Your task to perform on an android device: Open network settings Image 0: 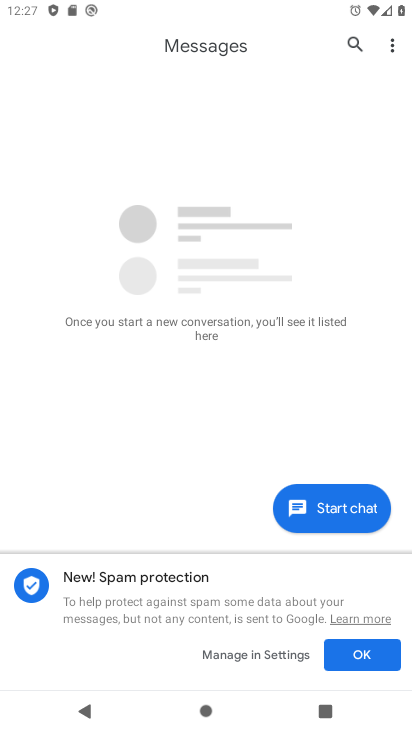
Step 0: press home button
Your task to perform on an android device: Open network settings Image 1: 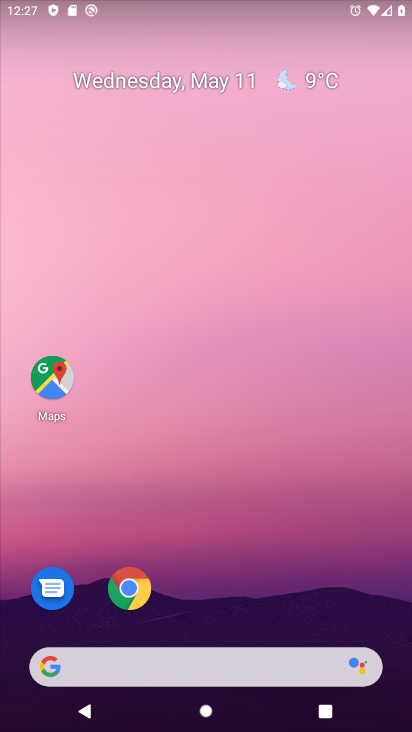
Step 1: drag from (329, 604) to (308, 35)
Your task to perform on an android device: Open network settings Image 2: 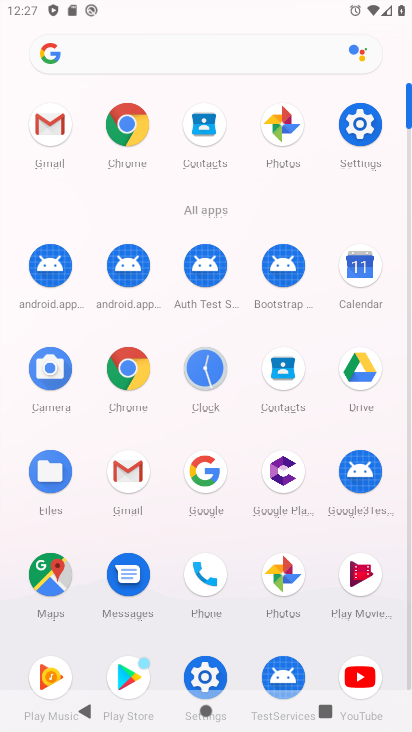
Step 2: click (359, 127)
Your task to perform on an android device: Open network settings Image 3: 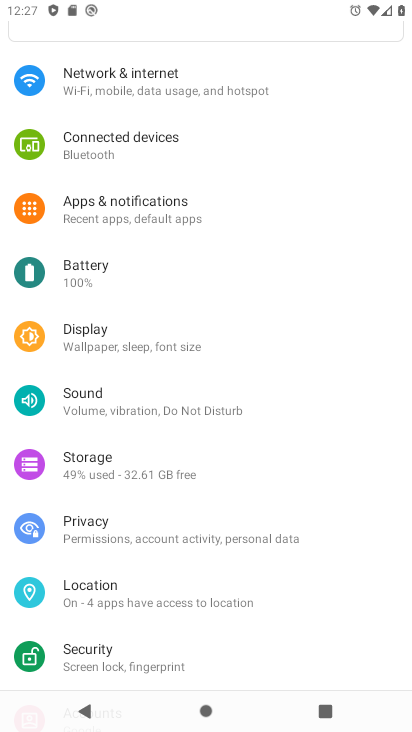
Step 3: click (110, 88)
Your task to perform on an android device: Open network settings Image 4: 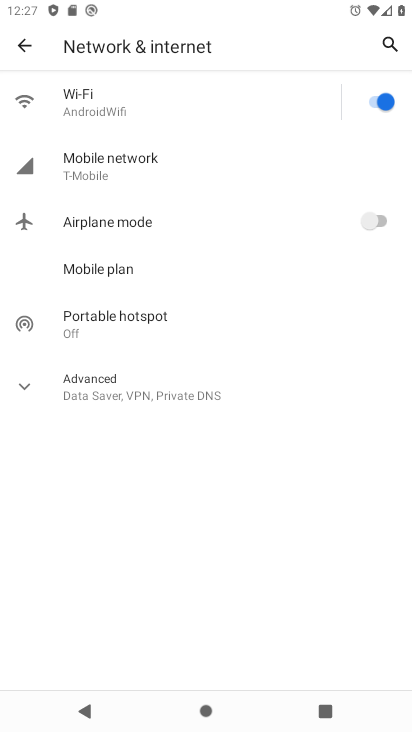
Step 4: click (90, 162)
Your task to perform on an android device: Open network settings Image 5: 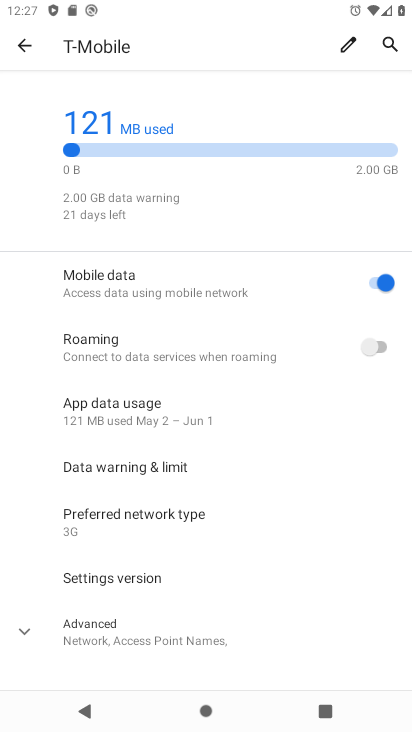
Step 5: click (26, 627)
Your task to perform on an android device: Open network settings Image 6: 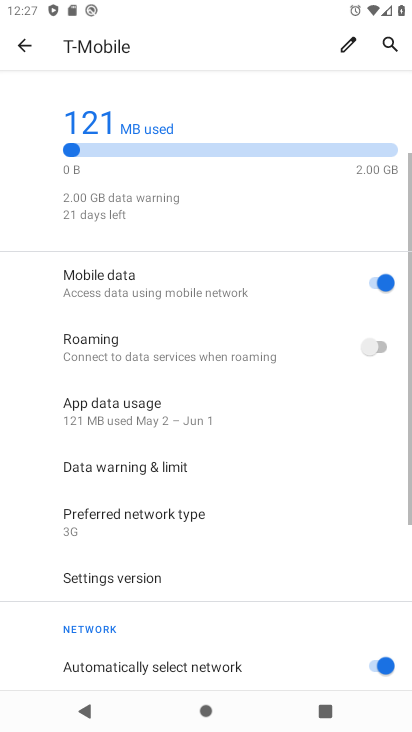
Step 6: task complete